Your task to perform on an android device: find snoozed emails in the gmail app Image 0: 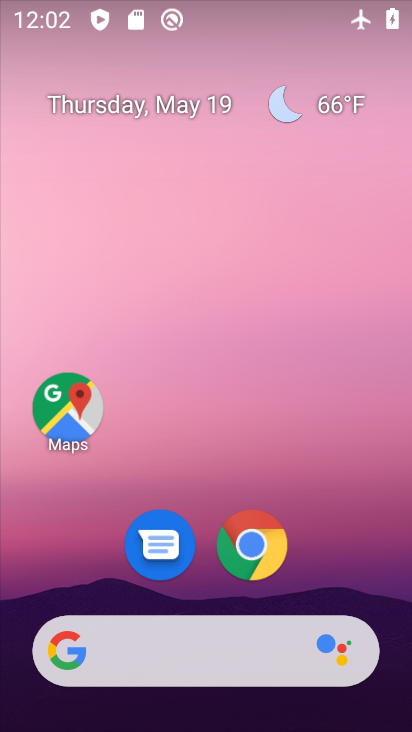
Step 0: drag from (190, 660) to (287, 108)
Your task to perform on an android device: find snoozed emails in the gmail app Image 1: 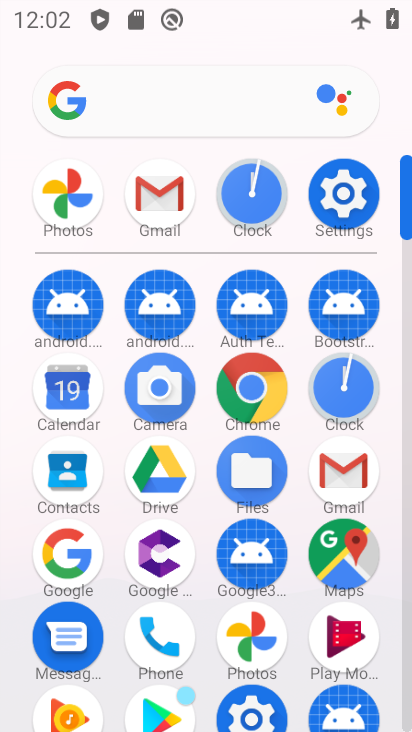
Step 1: click (161, 194)
Your task to perform on an android device: find snoozed emails in the gmail app Image 2: 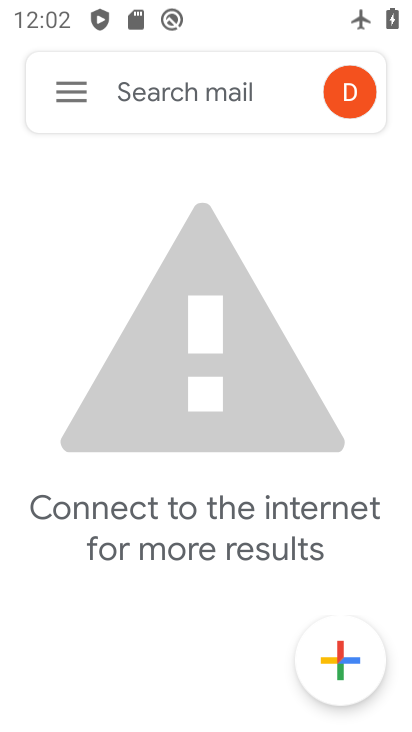
Step 2: click (52, 104)
Your task to perform on an android device: find snoozed emails in the gmail app Image 3: 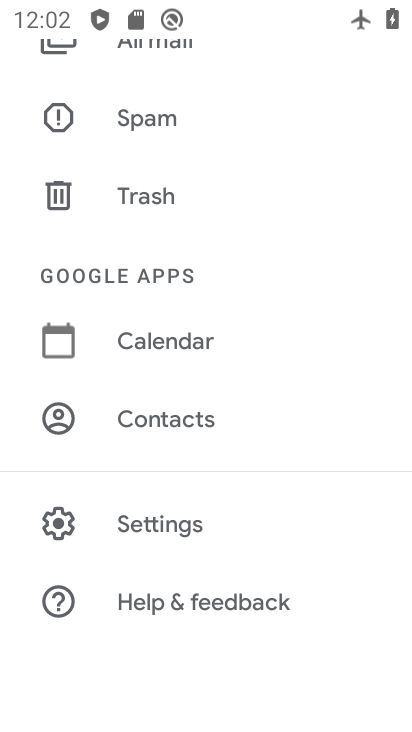
Step 3: drag from (266, 147) to (259, 693)
Your task to perform on an android device: find snoozed emails in the gmail app Image 4: 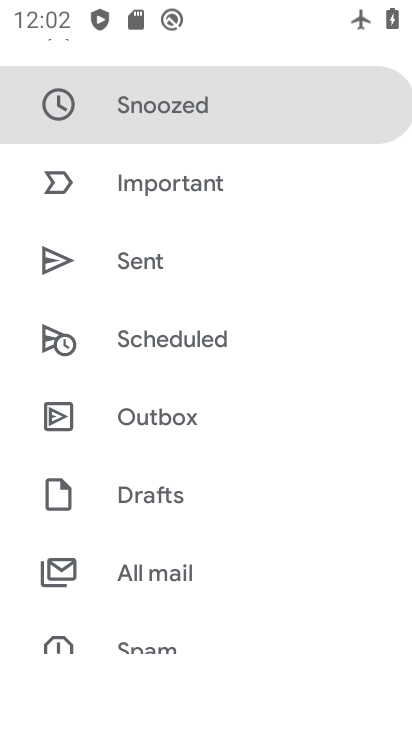
Step 4: drag from (302, 286) to (299, 605)
Your task to perform on an android device: find snoozed emails in the gmail app Image 5: 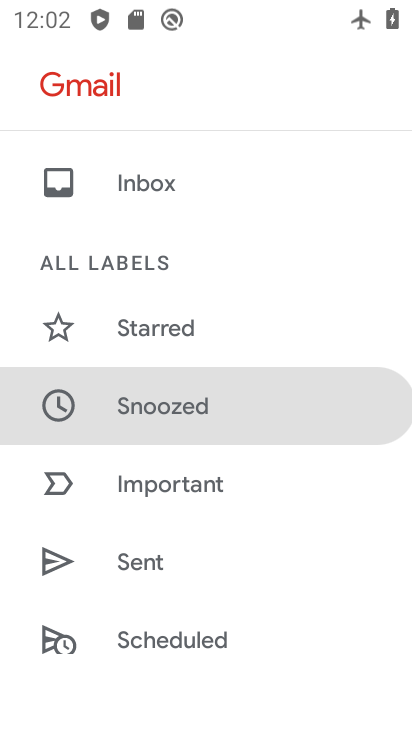
Step 5: click (240, 418)
Your task to perform on an android device: find snoozed emails in the gmail app Image 6: 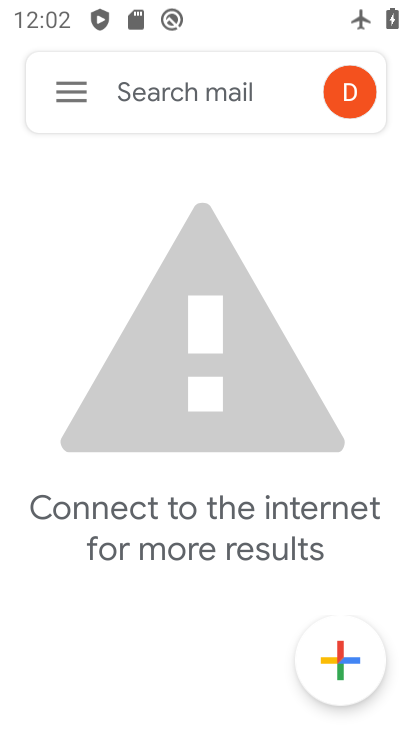
Step 6: task complete